Your task to perform on an android device: open the mobile data screen to see how much data has been used Image 0: 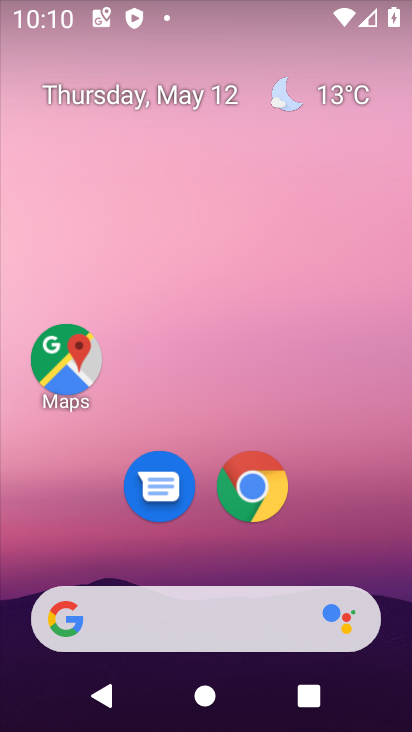
Step 0: drag from (365, 6) to (299, 383)
Your task to perform on an android device: open the mobile data screen to see how much data has been used Image 1: 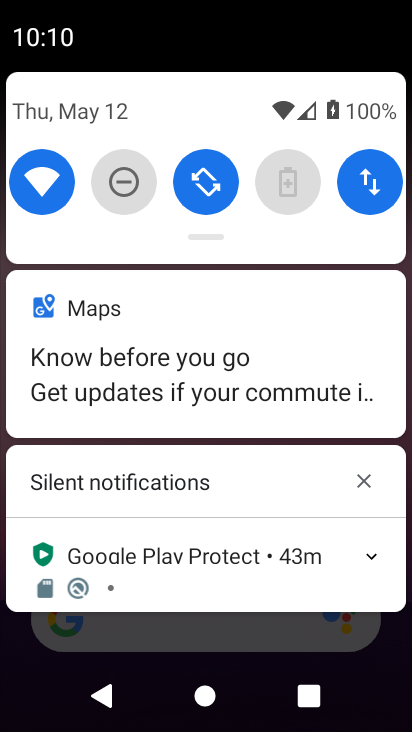
Step 1: click (373, 178)
Your task to perform on an android device: open the mobile data screen to see how much data has been used Image 2: 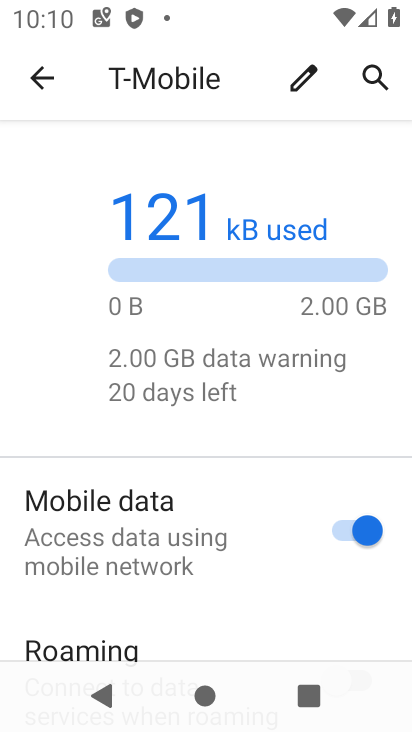
Step 2: task complete